Your task to perform on an android device: turn off smart reply in the gmail app Image 0: 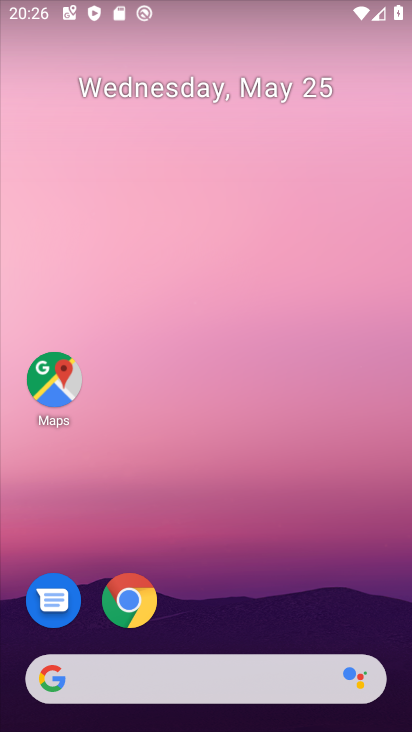
Step 0: drag from (242, 568) to (232, 98)
Your task to perform on an android device: turn off smart reply in the gmail app Image 1: 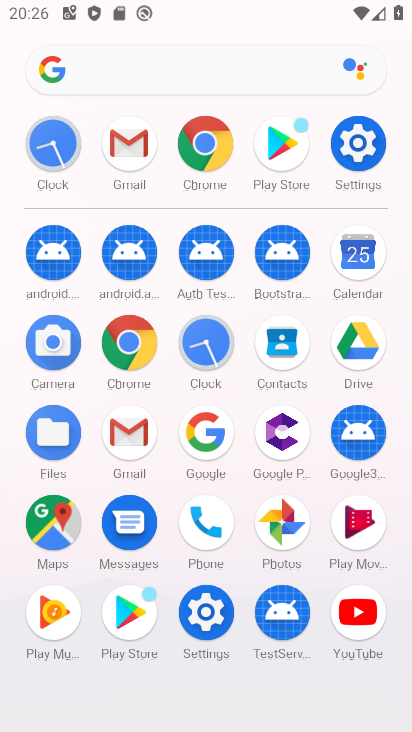
Step 1: click (141, 441)
Your task to perform on an android device: turn off smart reply in the gmail app Image 2: 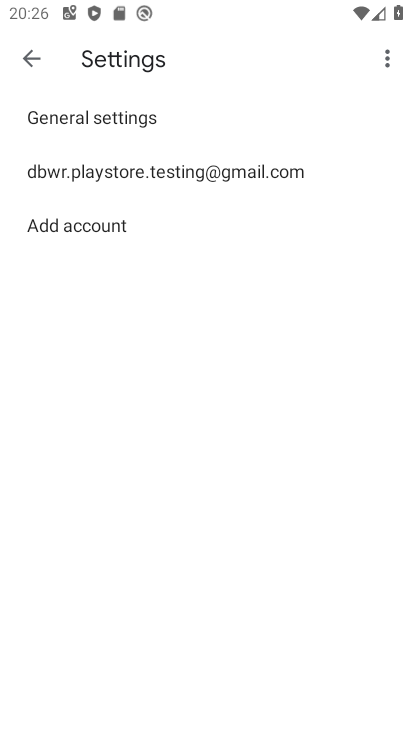
Step 2: click (108, 169)
Your task to perform on an android device: turn off smart reply in the gmail app Image 3: 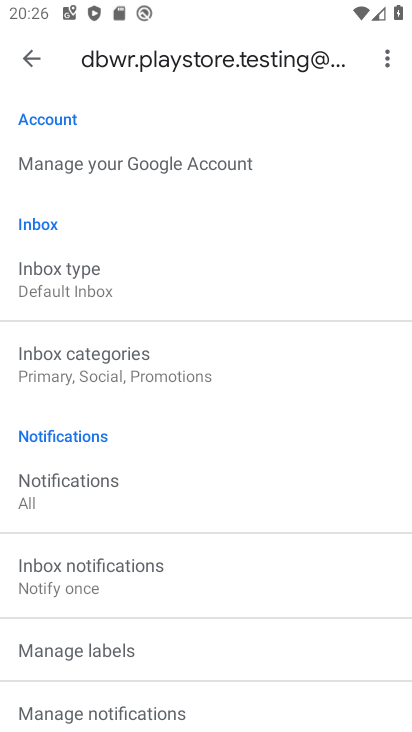
Step 3: drag from (197, 677) to (169, 227)
Your task to perform on an android device: turn off smart reply in the gmail app Image 4: 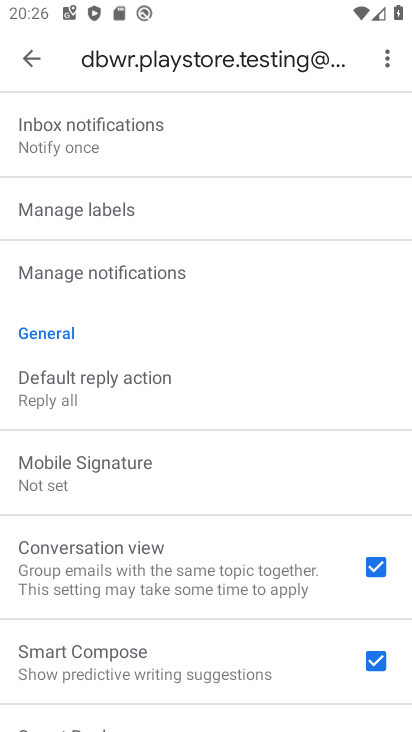
Step 4: drag from (211, 630) to (192, 299)
Your task to perform on an android device: turn off smart reply in the gmail app Image 5: 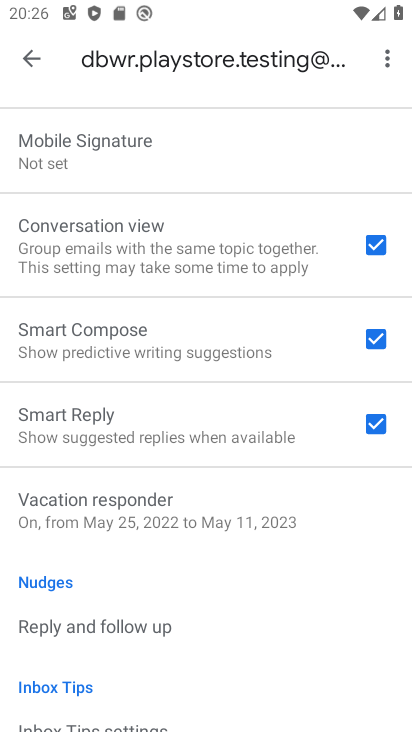
Step 5: click (383, 427)
Your task to perform on an android device: turn off smart reply in the gmail app Image 6: 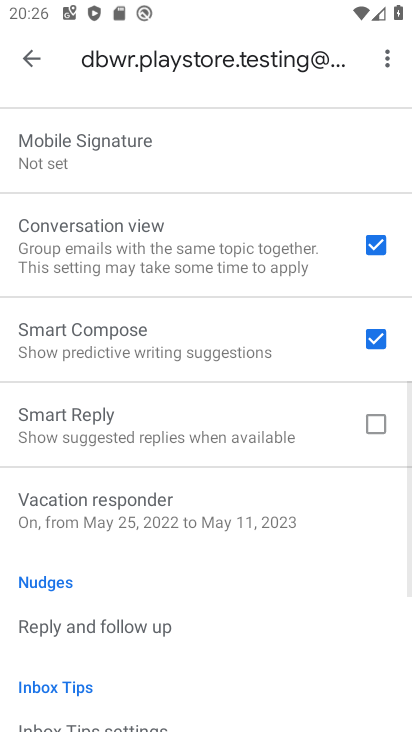
Step 6: task complete